Your task to perform on an android device: choose inbox layout in the gmail app Image 0: 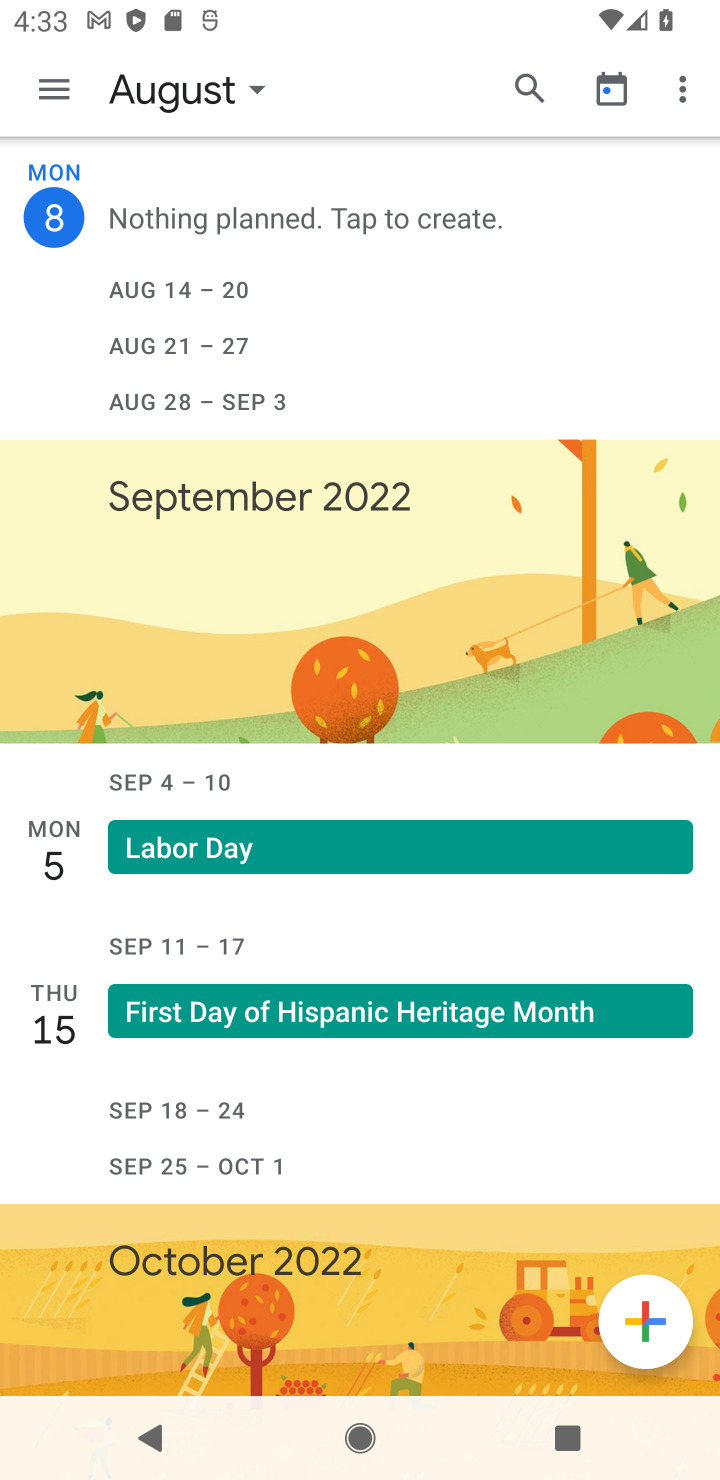
Step 0: press home button
Your task to perform on an android device: choose inbox layout in the gmail app Image 1: 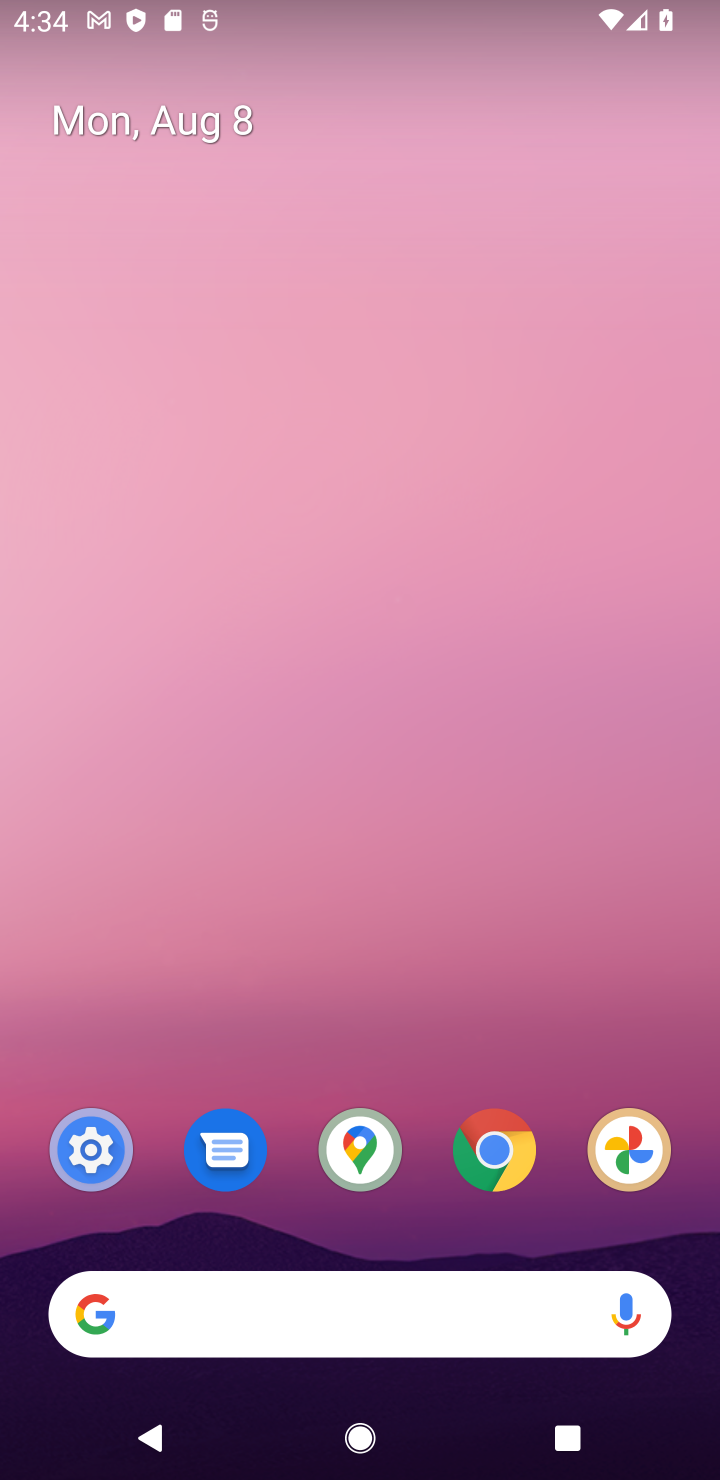
Step 1: drag from (424, 1255) to (541, 292)
Your task to perform on an android device: choose inbox layout in the gmail app Image 2: 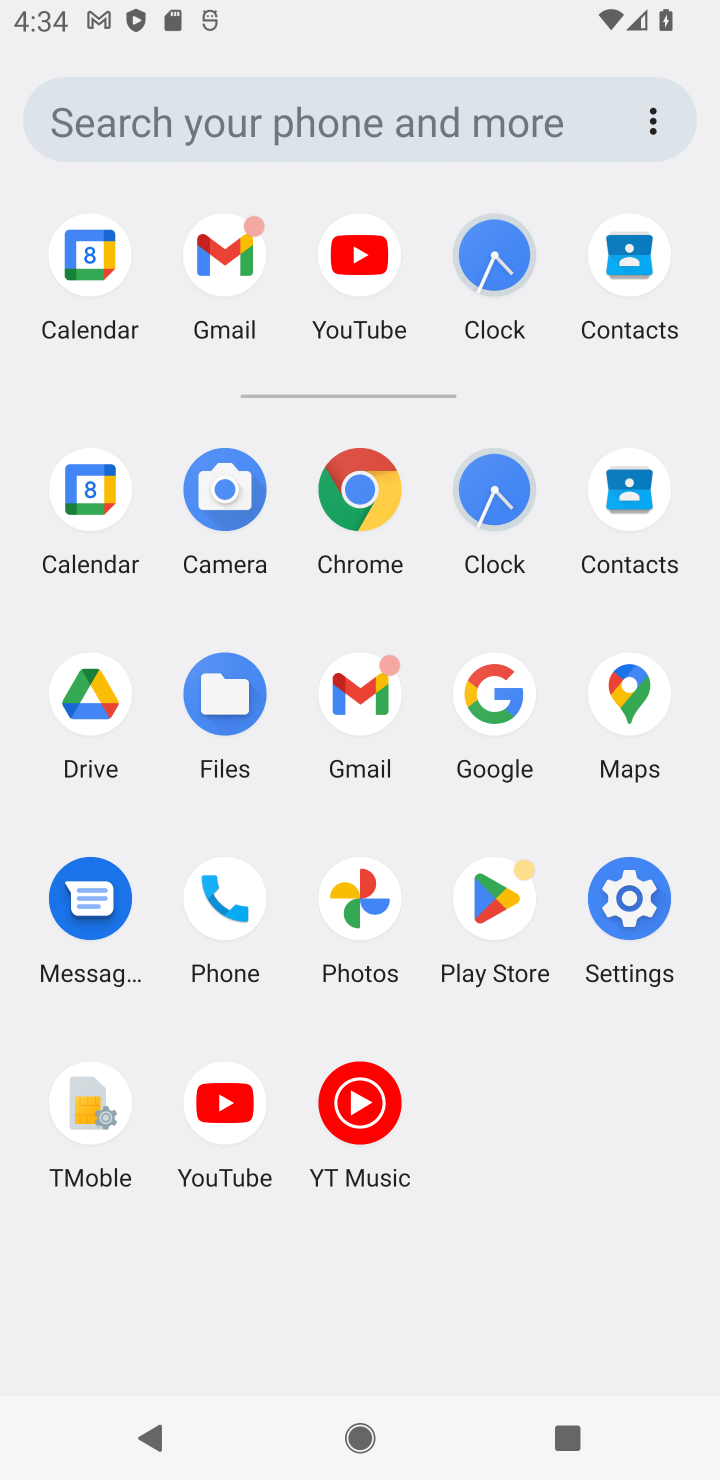
Step 2: click (387, 687)
Your task to perform on an android device: choose inbox layout in the gmail app Image 3: 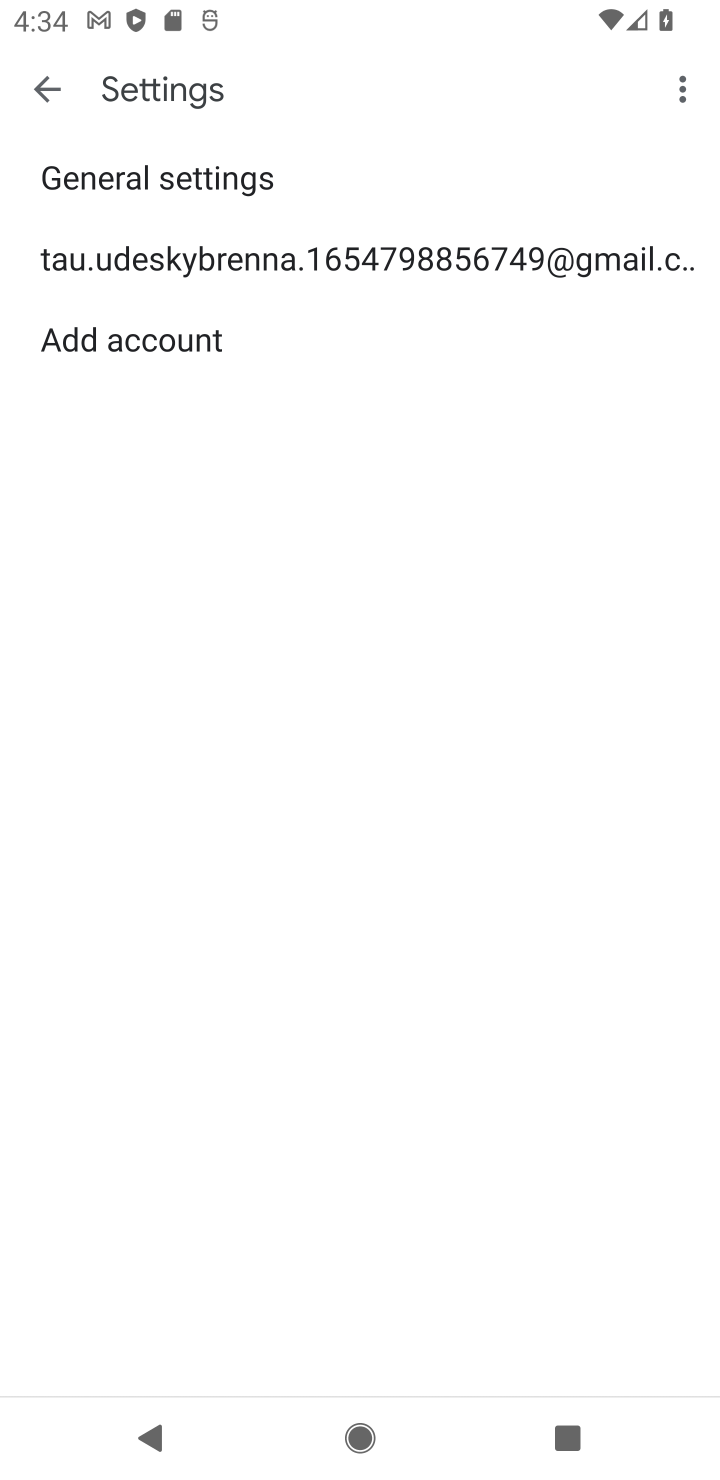
Step 3: task complete